Your task to perform on an android device: find snoozed emails in the gmail app Image 0: 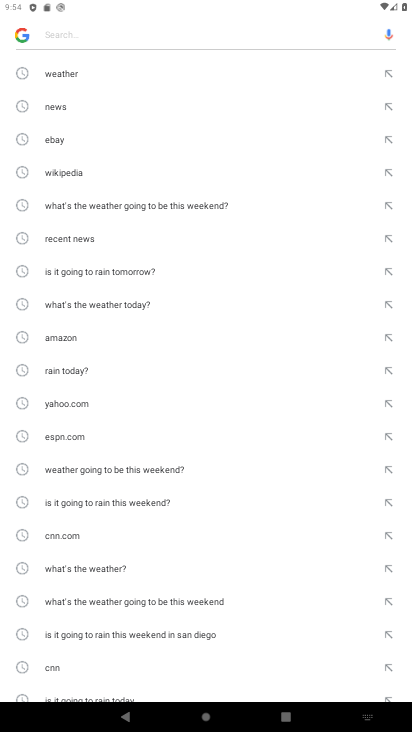
Step 0: press home button
Your task to perform on an android device: find snoozed emails in the gmail app Image 1: 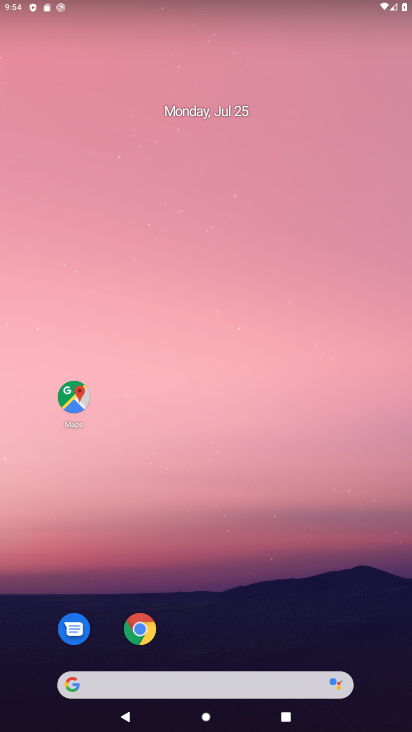
Step 1: drag from (222, 460) to (160, 107)
Your task to perform on an android device: find snoozed emails in the gmail app Image 2: 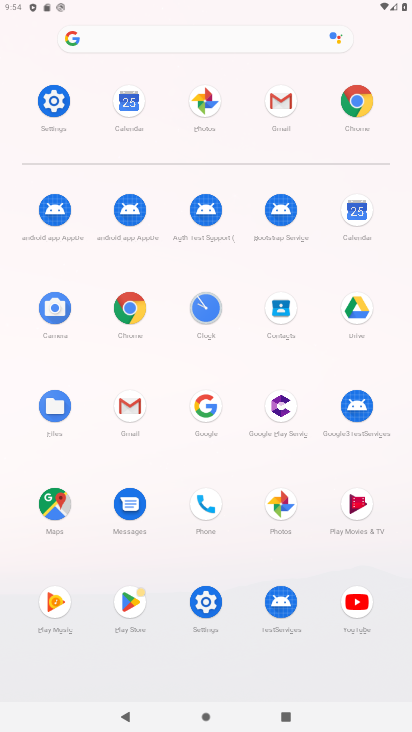
Step 2: click (283, 98)
Your task to perform on an android device: find snoozed emails in the gmail app Image 3: 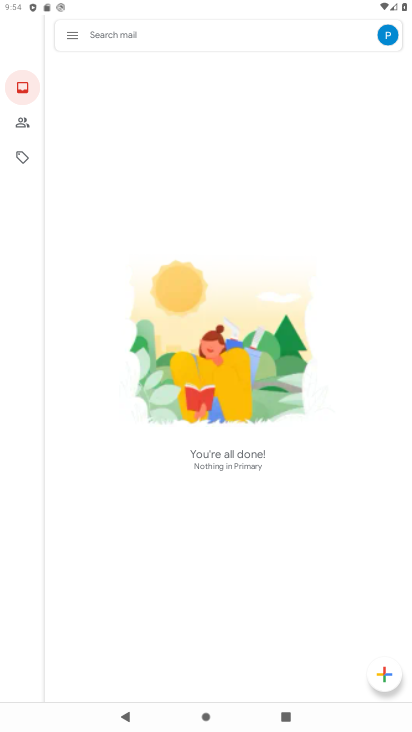
Step 3: click (70, 40)
Your task to perform on an android device: find snoozed emails in the gmail app Image 4: 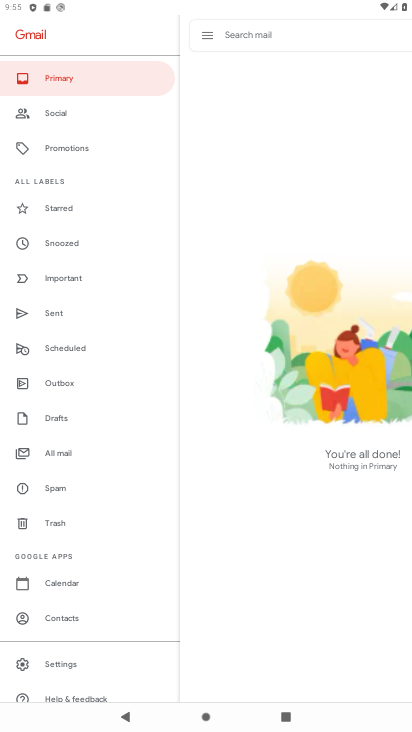
Step 4: click (68, 248)
Your task to perform on an android device: find snoozed emails in the gmail app Image 5: 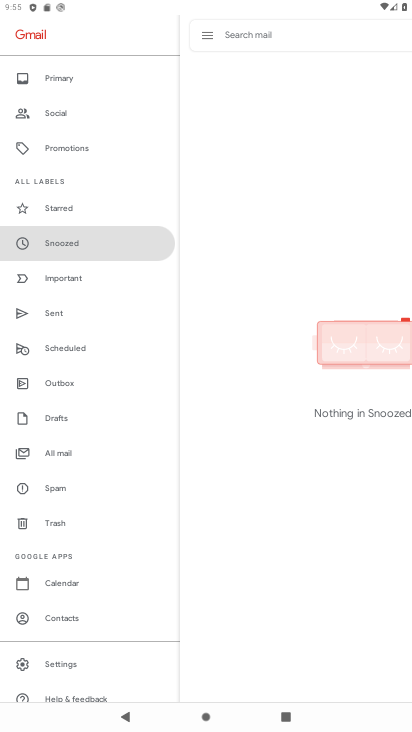
Step 5: task complete